Your task to perform on an android device: Is it going to rain tomorrow? Image 0: 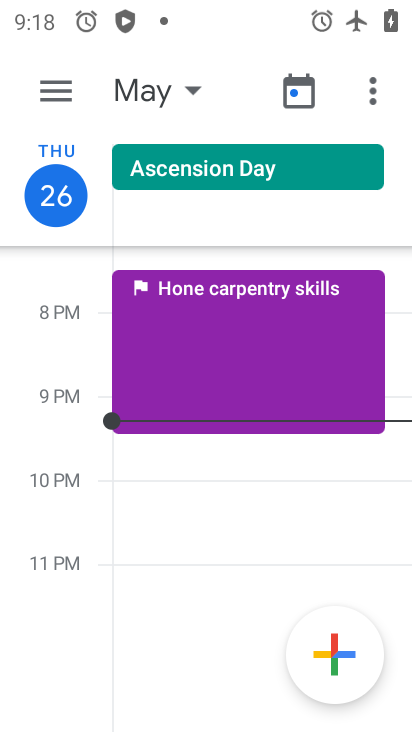
Step 0: press back button
Your task to perform on an android device: Is it going to rain tomorrow? Image 1: 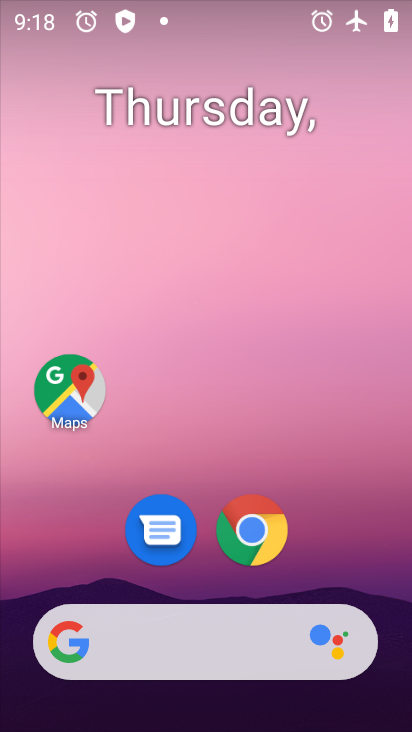
Step 1: drag from (337, 514) to (283, 54)
Your task to perform on an android device: Is it going to rain tomorrow? Image 2: 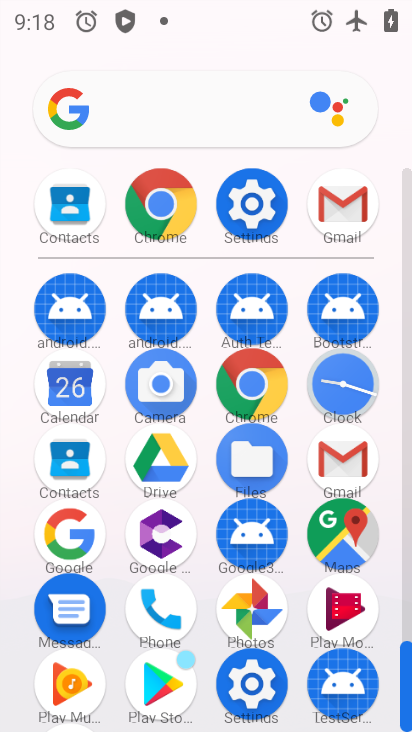
Step 2: click (158, 204)
Your task to perform on an android device: Is it going to rain tomorrow? Image 3: 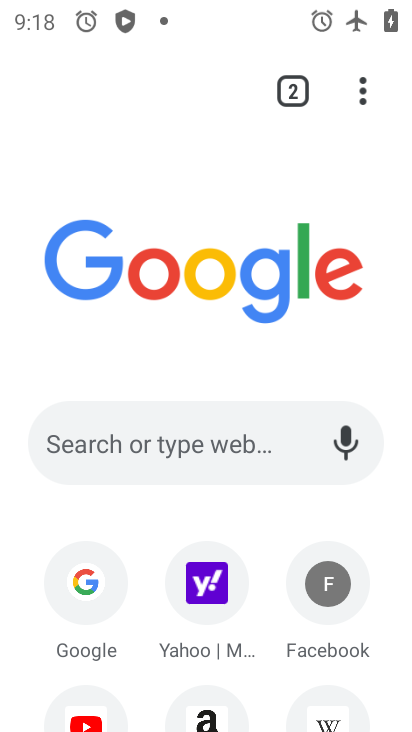
Step 3: click (119, 433)
Your task to perform on an android device: Is it going to rain tomorrow? Image 4: 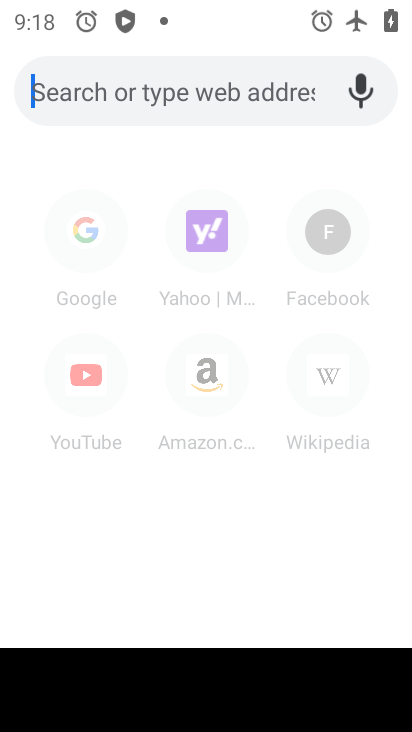
Step 4: type "Is it going to rain tomorrow?"
Your task to perform on an android device: Is it going to rain tomorrow? Image 5: 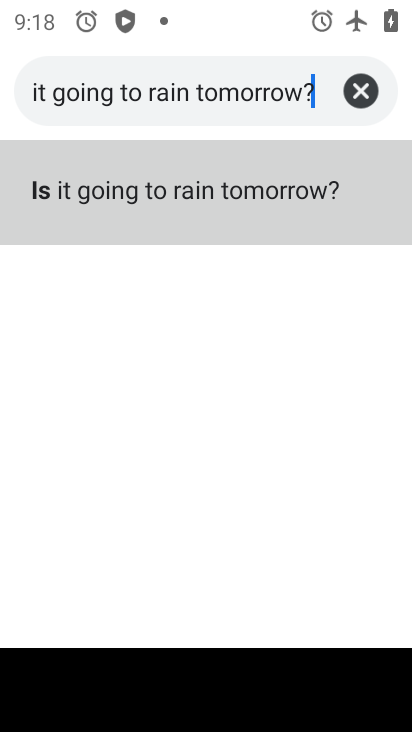
Step 5: type ""
Your task to perform on an android device: Is it going to rain tomorrow? Image 6: 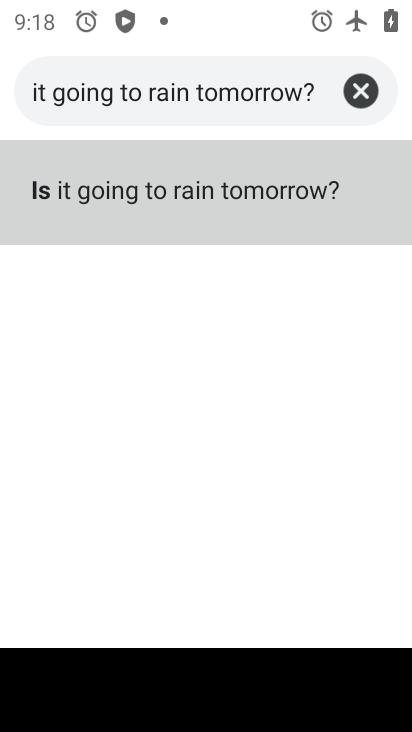
Step 6: click (132, 188)
Your task to perform on an android device: Is it going to rain tomorrow? Image 7: 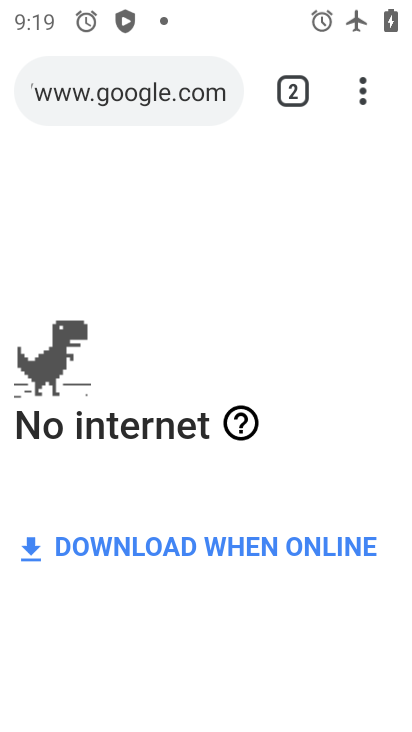
Step 7: task complete